Your task to perform on an android device: check battery use Image 0: 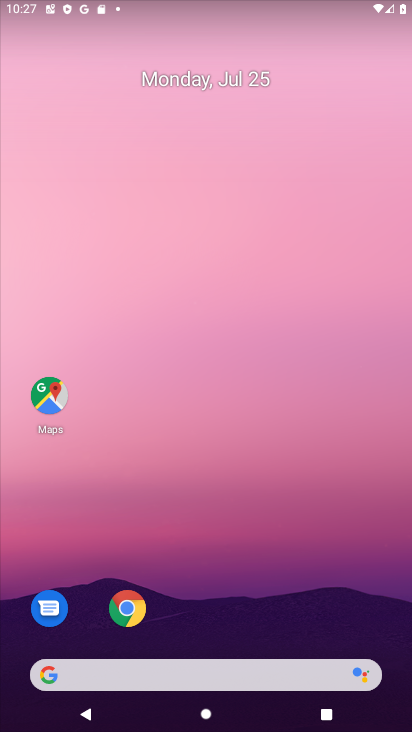
Step 0: click (235, 121)
Your task to perform on an android device: check battery use Image 1: 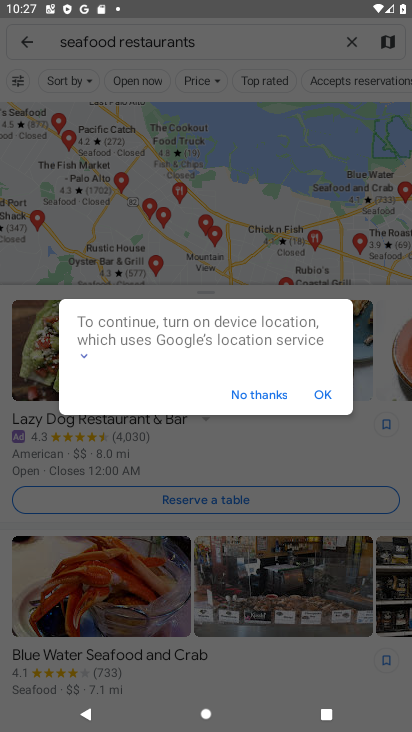
Step 1: press home button
Your task to perform on an android device: check battery use Image 2: 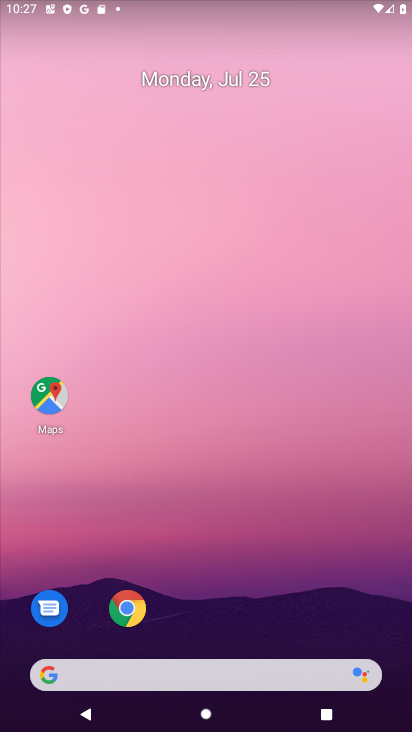
Step 2: drag from (210, 505) to (209, 52)
Your task to perform on an android device: check battery use Image 3: 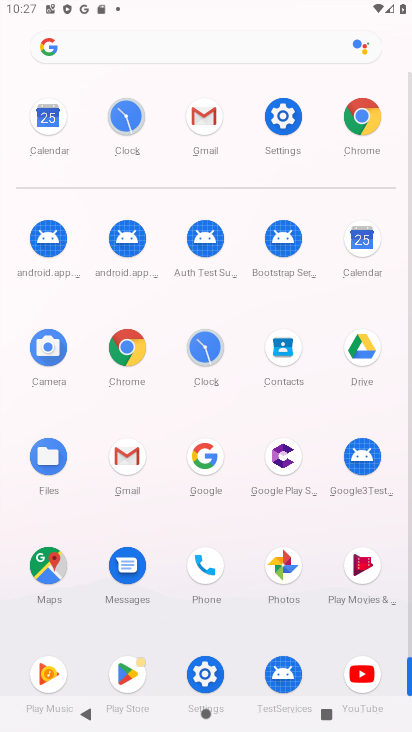
Step 3: click (211, 672)
Your task to perform on an android device: check battery use Image 4: 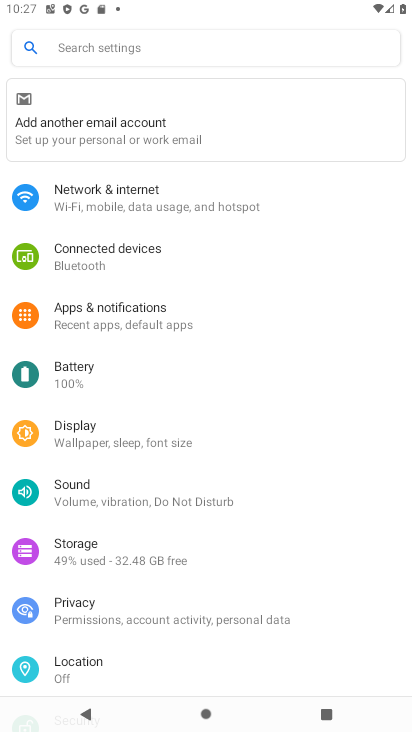
Step 4: click (59, 371)
Your task to perform on an android device: check battery use Image 5: 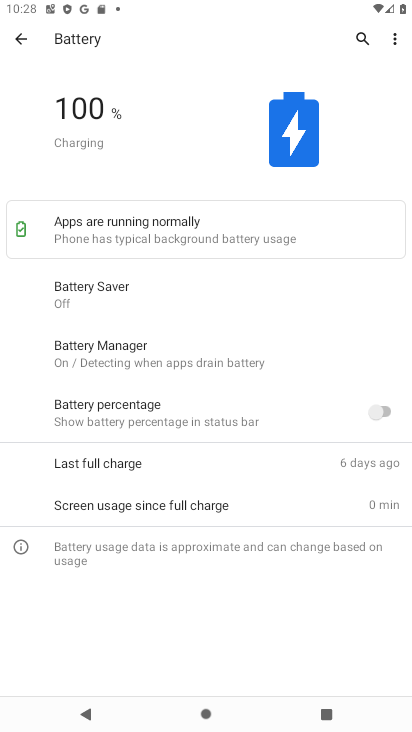
Step 5: task complete